Your task to perform on an android device: What's the latest tech news? Image 0: 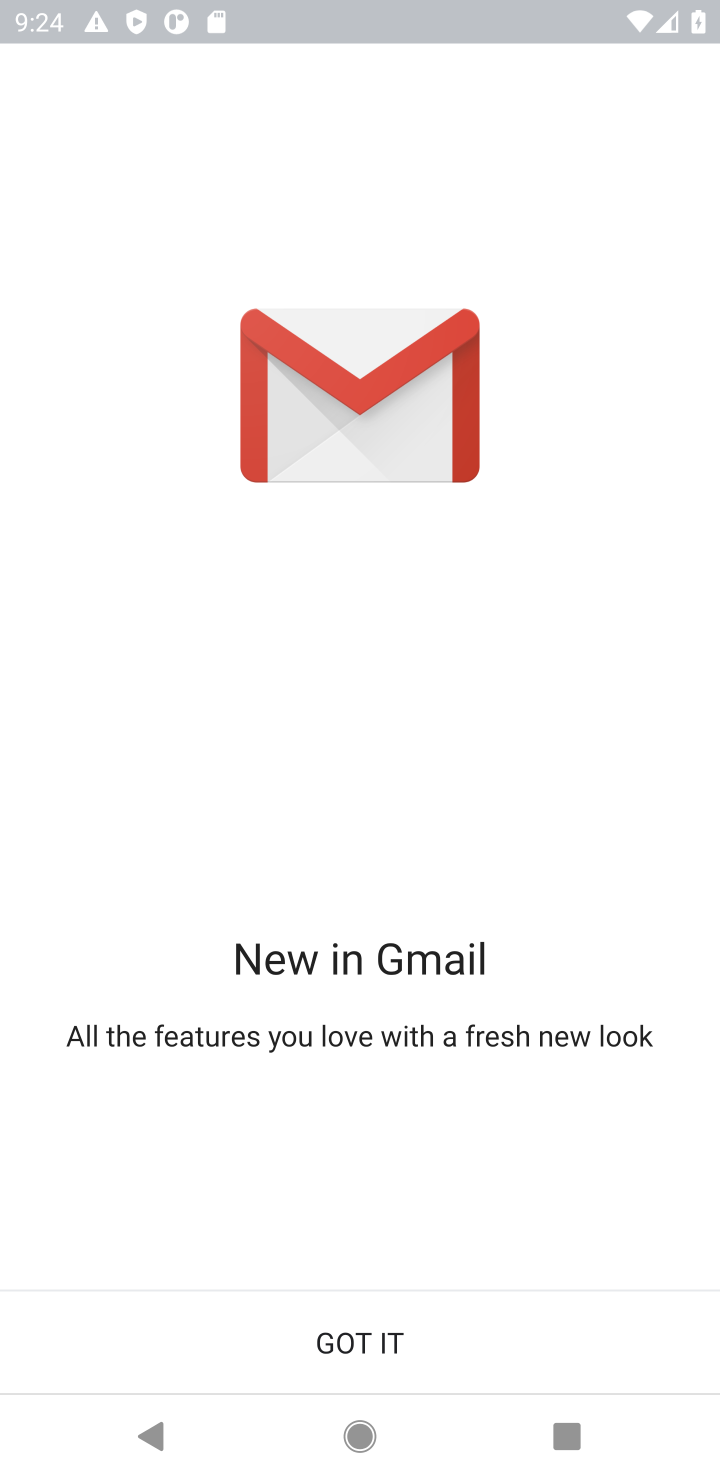
Step 0: press home button
Your task to perform on an android device: What's the latest tech news? Image 1: 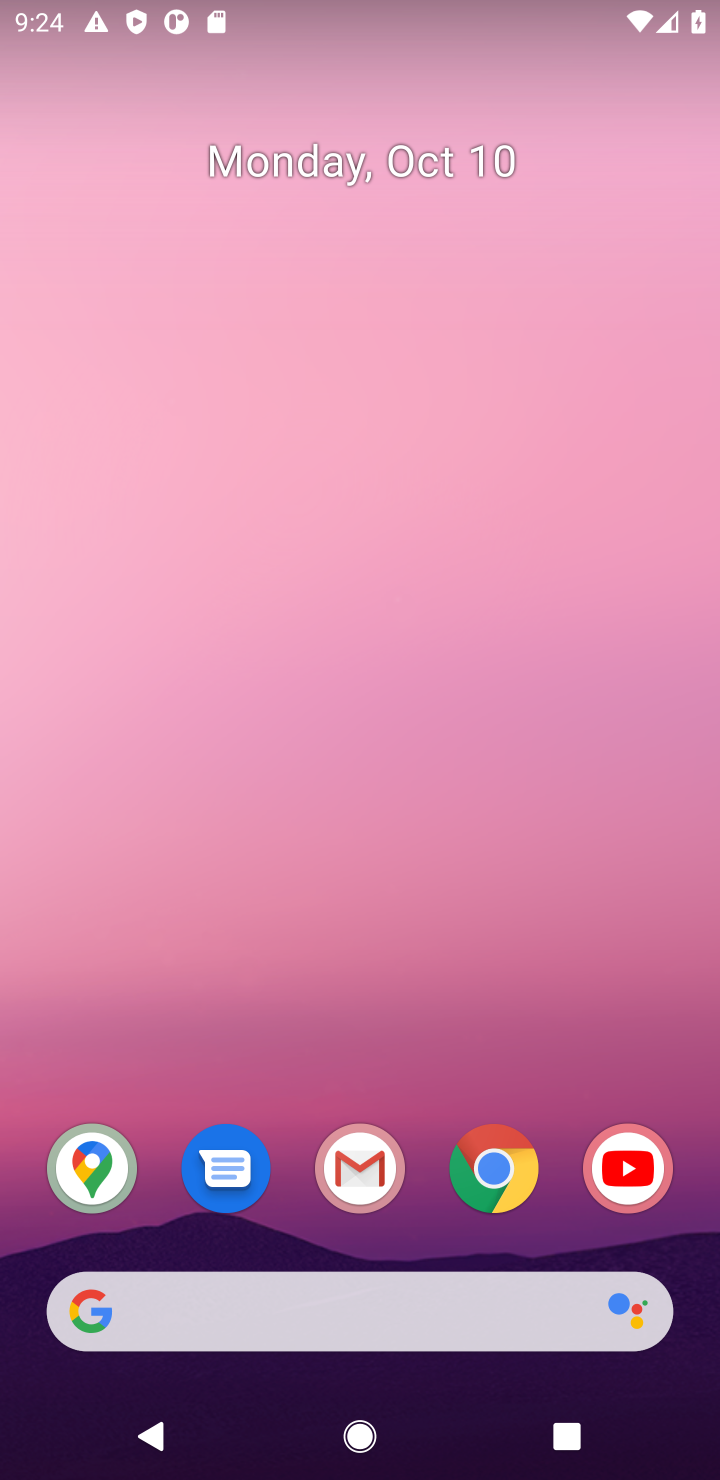
Step 1: click (471, 1169)
Your task to perform on an android device: What's the latest tech news? Image 2: 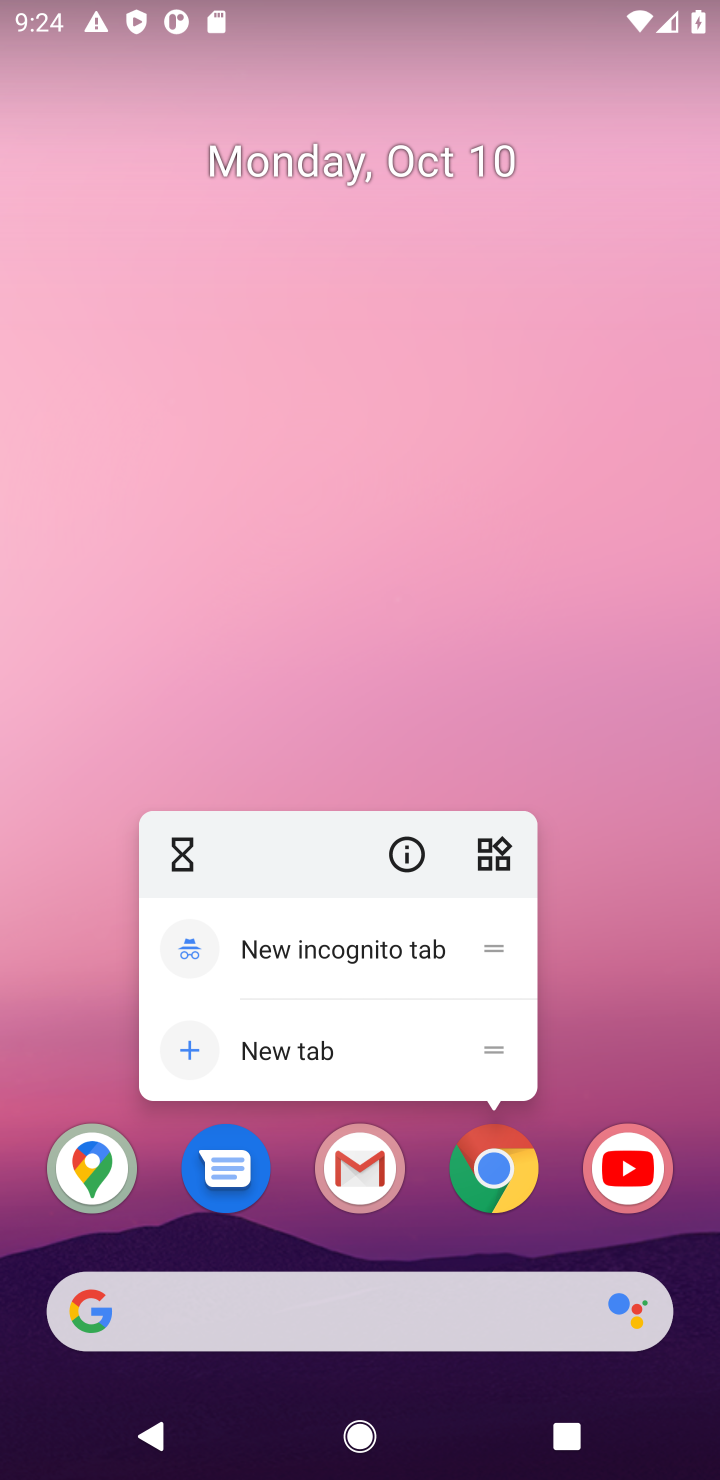
Step 2: click (500, 1172)
Your task to perform on an android device: What's the latest tech news? Image 3: 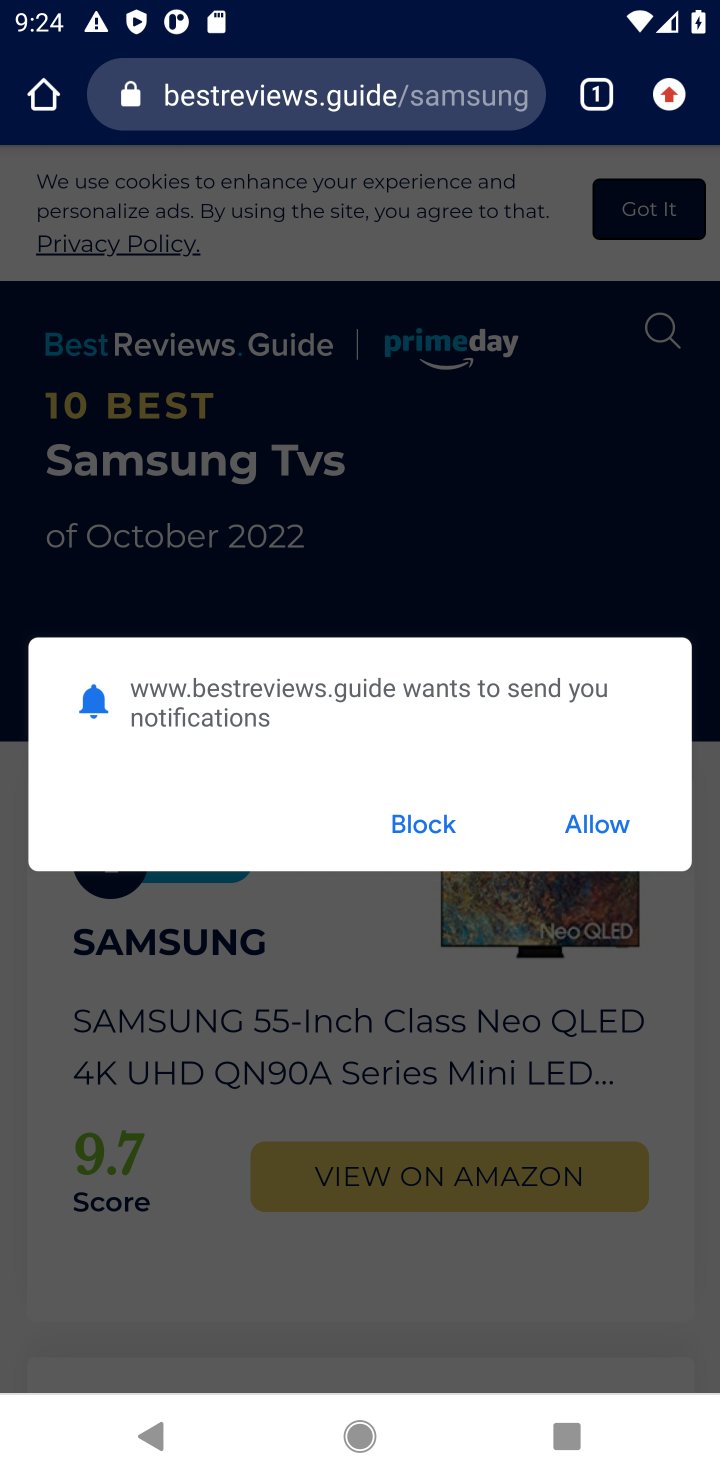
Step 3: click (451, 76)
Your task to perform on an android device: What's the latest tech news? Image 4: 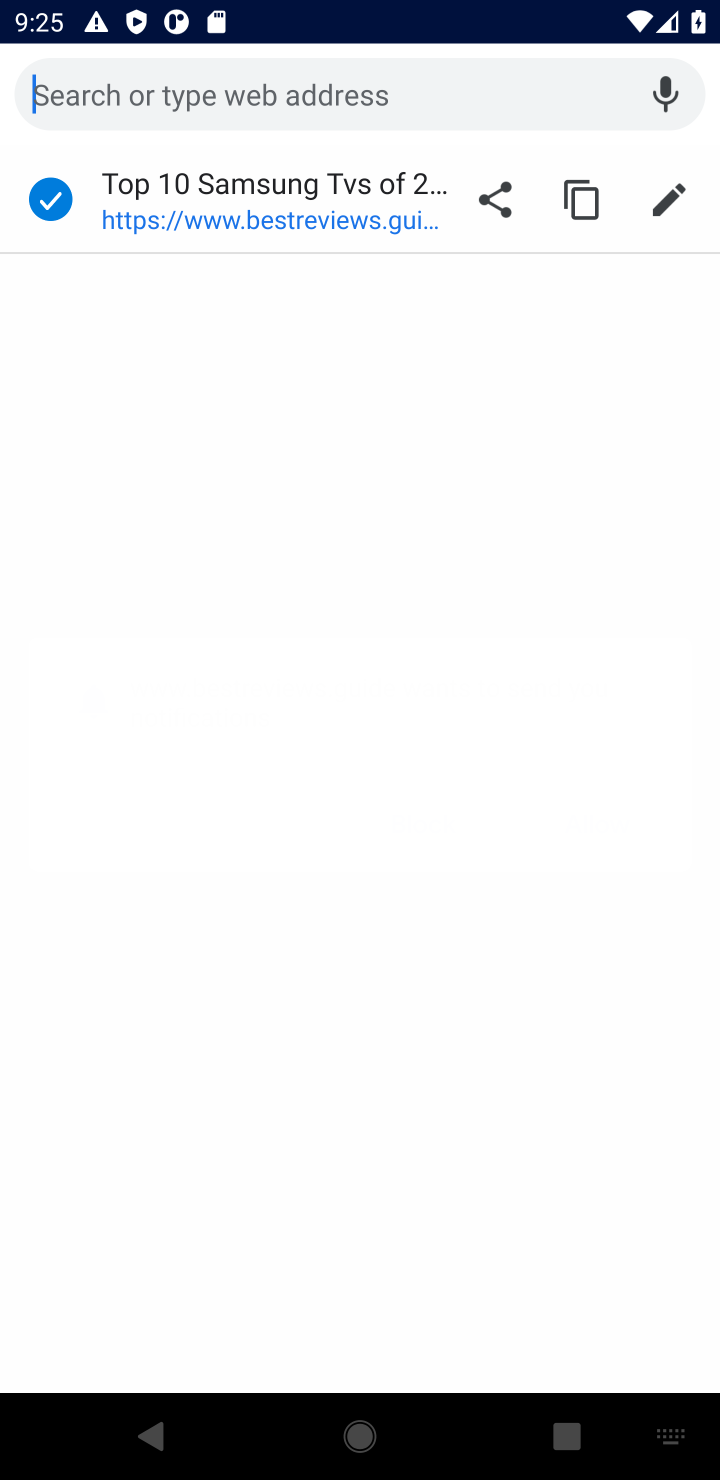
Step 4: type "latest tech news"
Your task to perform on an android device: What's the latest tech news? Image 5: 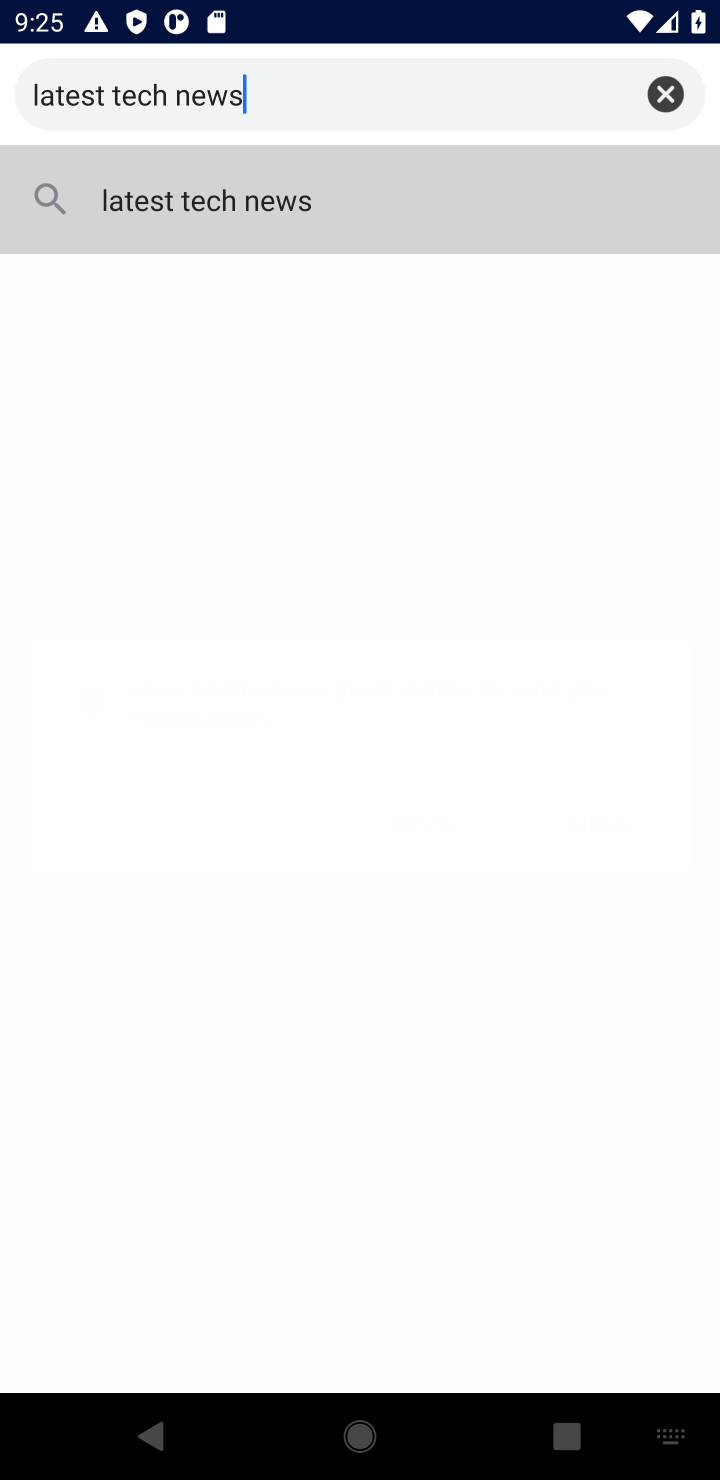
Step 5: click (510, 191)
Your task to perform on an android device: What's the latest tech news? Image 6: 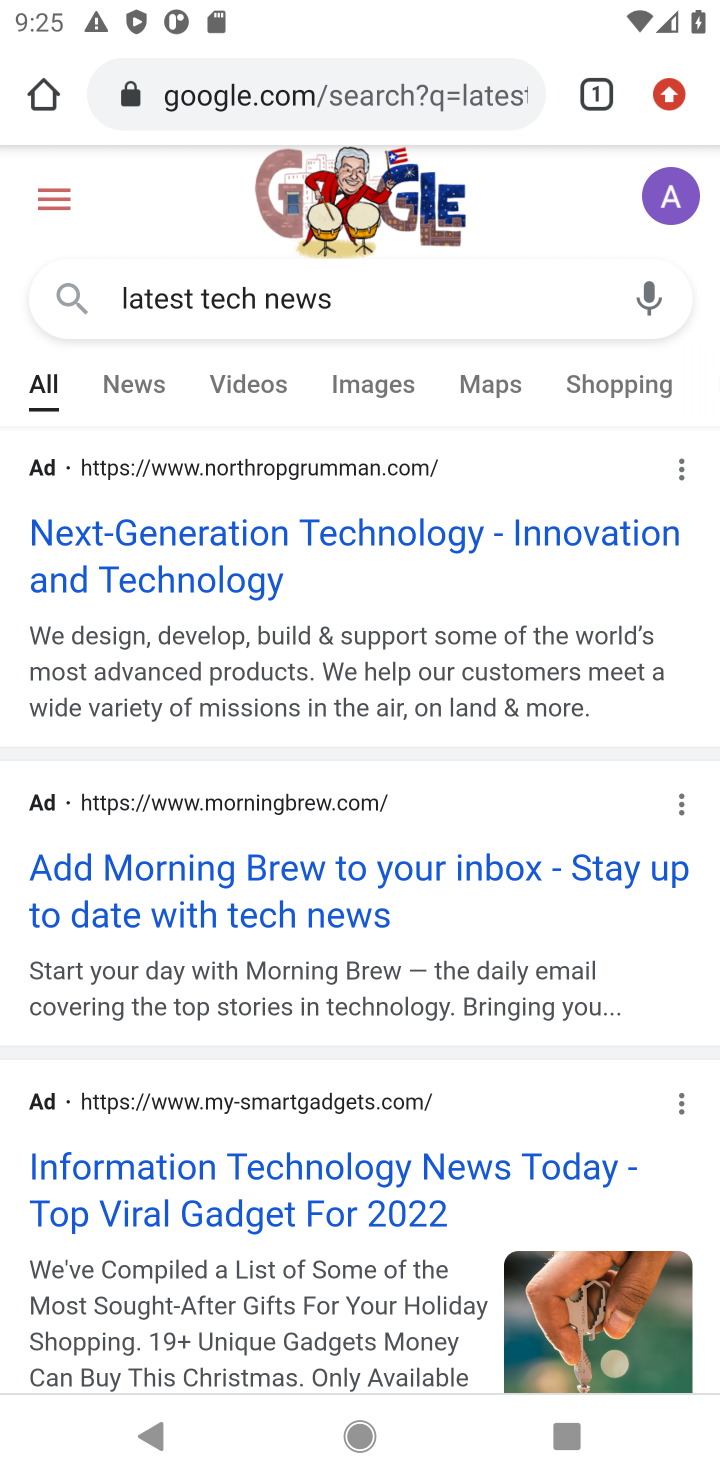
Step 6: click (140, 372)
Your task to perform on an android device: What's the latest tech news? Image 7: 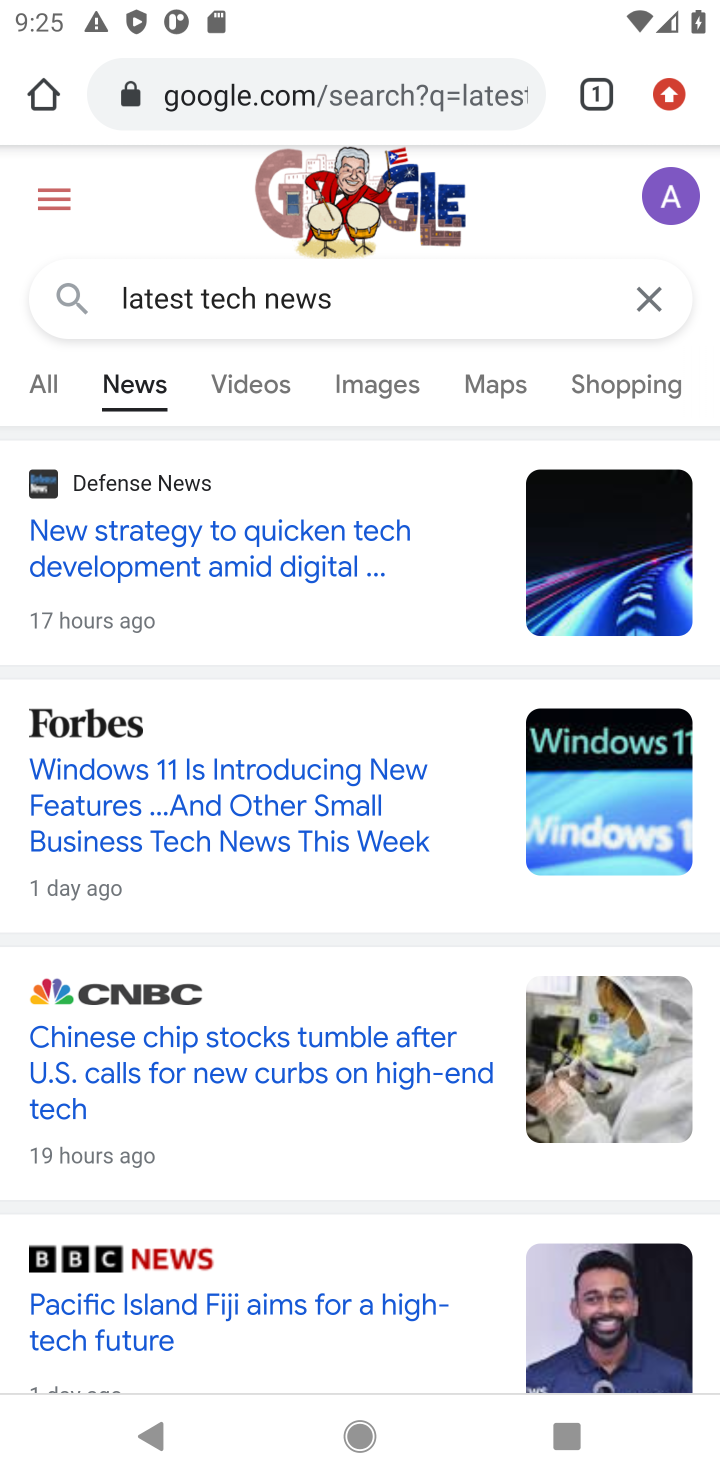
Step 7: drag from (454, 940) to (505, 577)
Your task to perform on an android device: What's the latest tech news? Image 8: 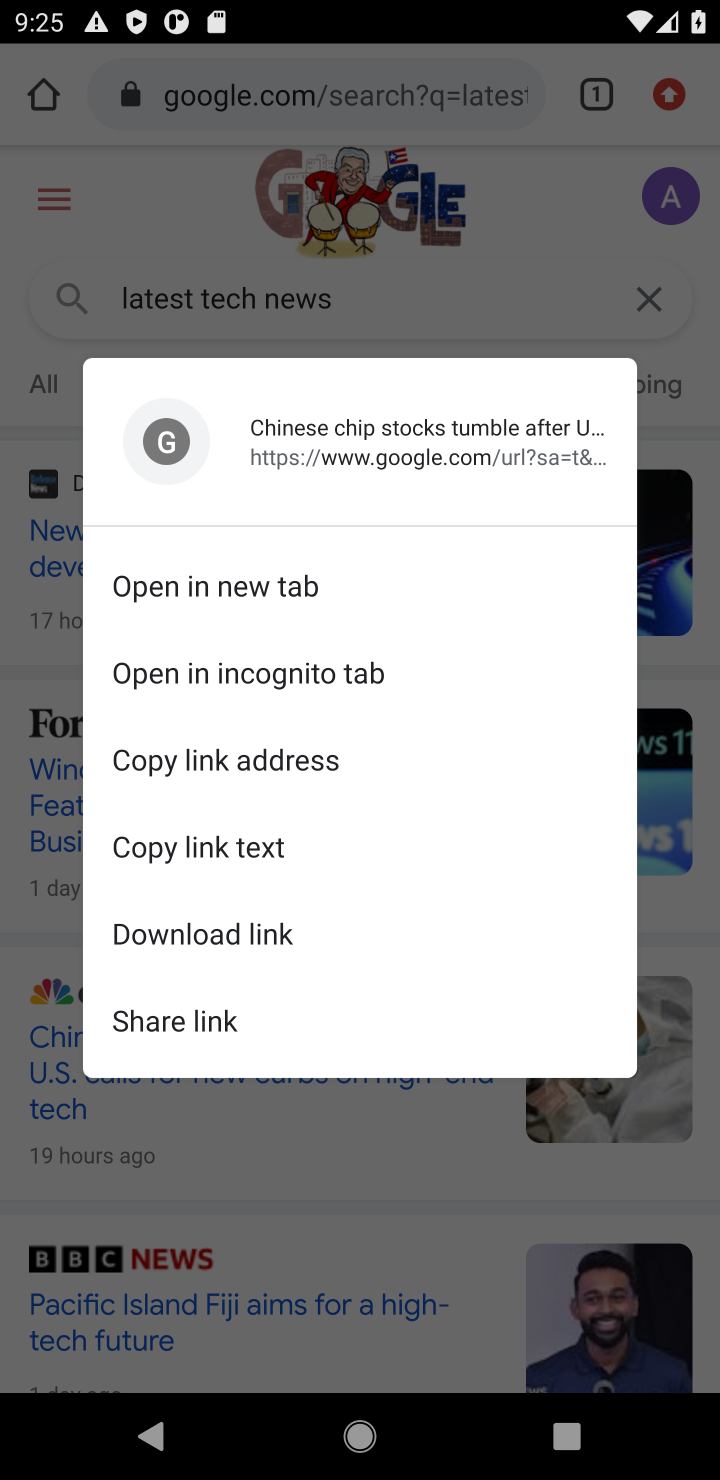
Step 8: click (632, 1232)
Your task to perform on an android device: What's the latest tech news? Image 9: 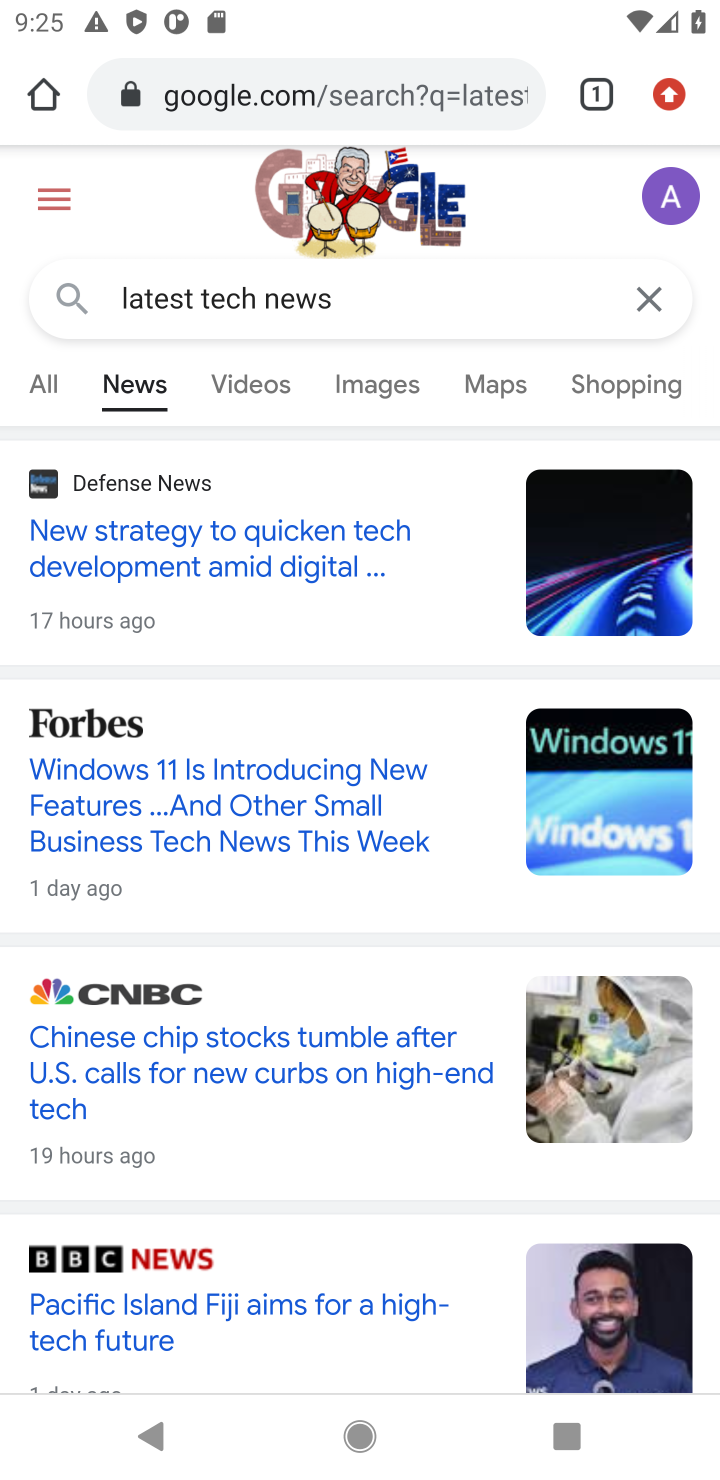
Step 9: task complete